Your task to perform on an android device: turn on showing notifications on the lock screen Image 0: 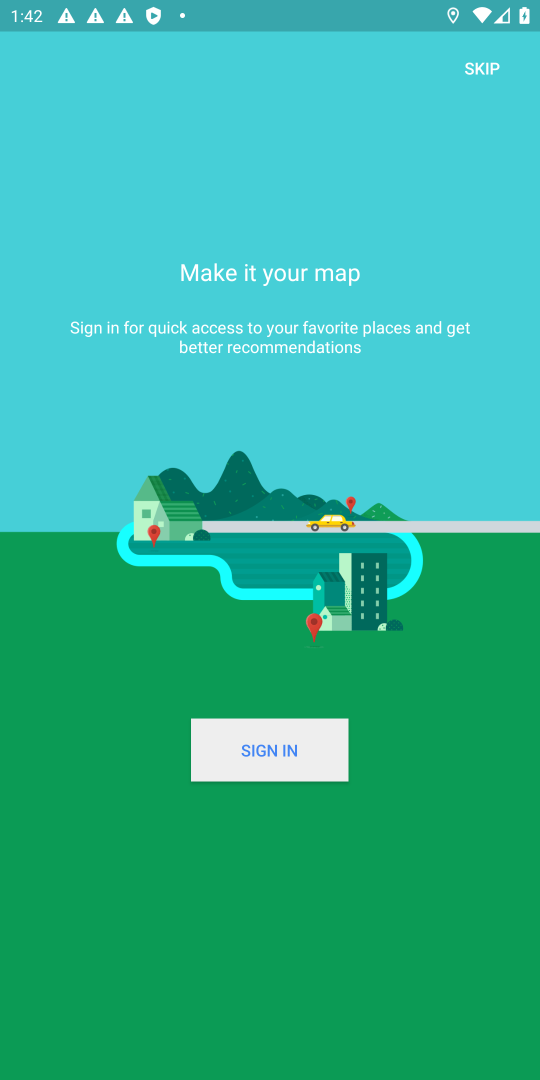
Step 0: click (471, 71)
Your task to perform on an android device: turn on showing notifications on the lock screen Image 1: 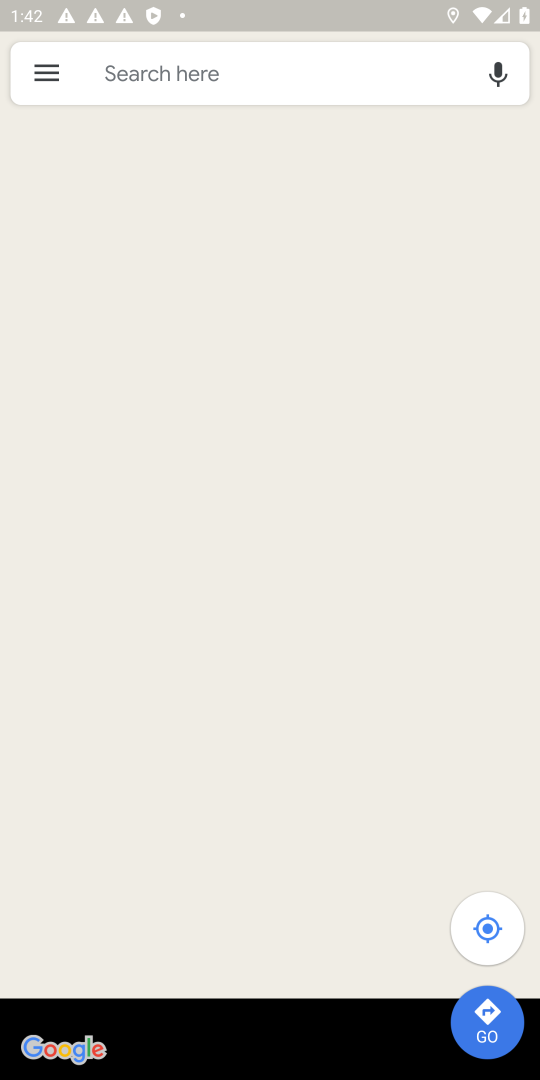
Step 1: click (481, 69)
Your task to perform on an android device: turn on showing notifications on the lock screen Image 2: 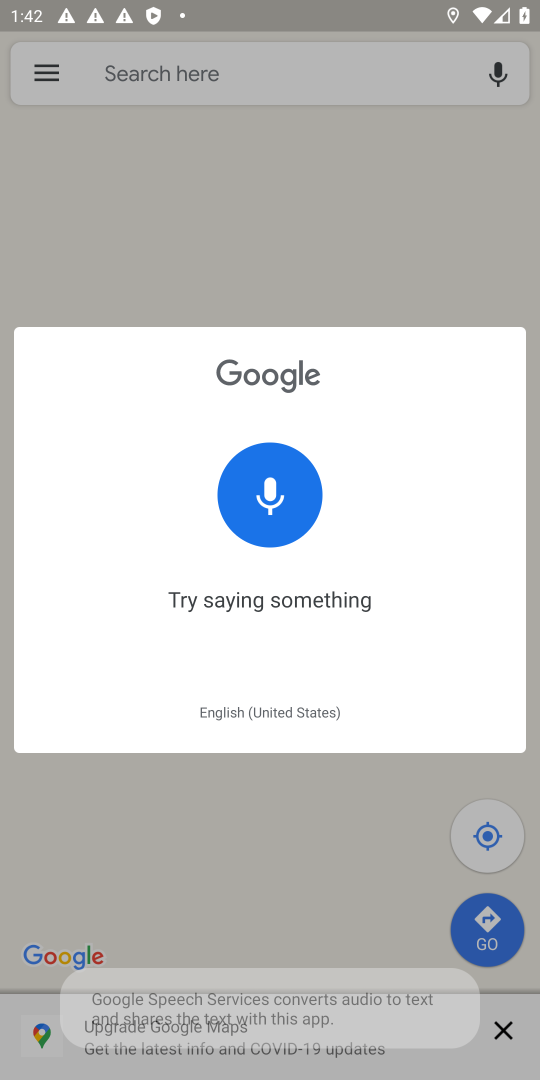
Step 2: press back button
Your task to perform on an android device: turn on showing notifications on the lock screen Image 3: 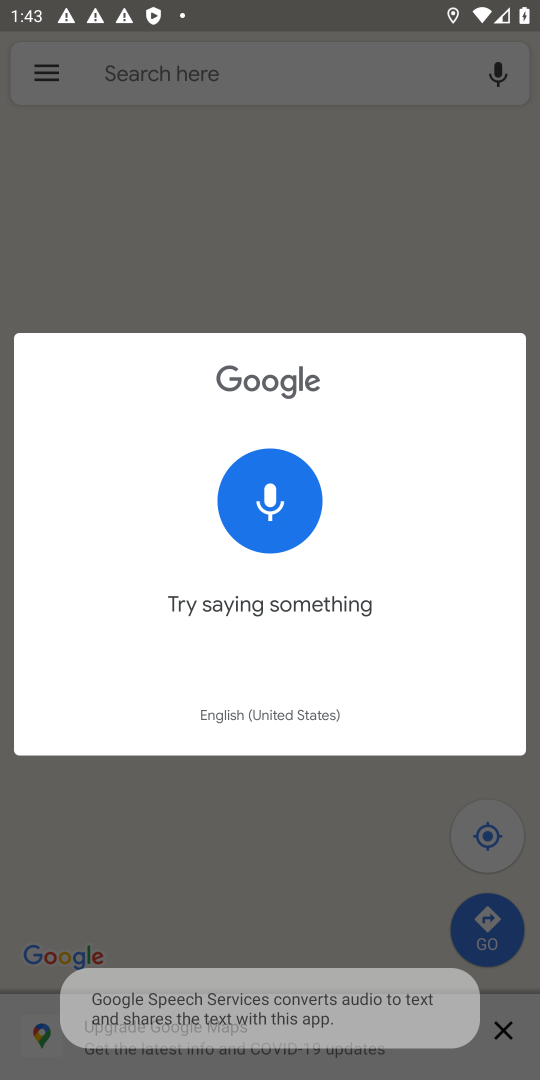
Step 3: press back button
Your task to perform on an android device: turn on showing notifications on the lock screen Image 4: 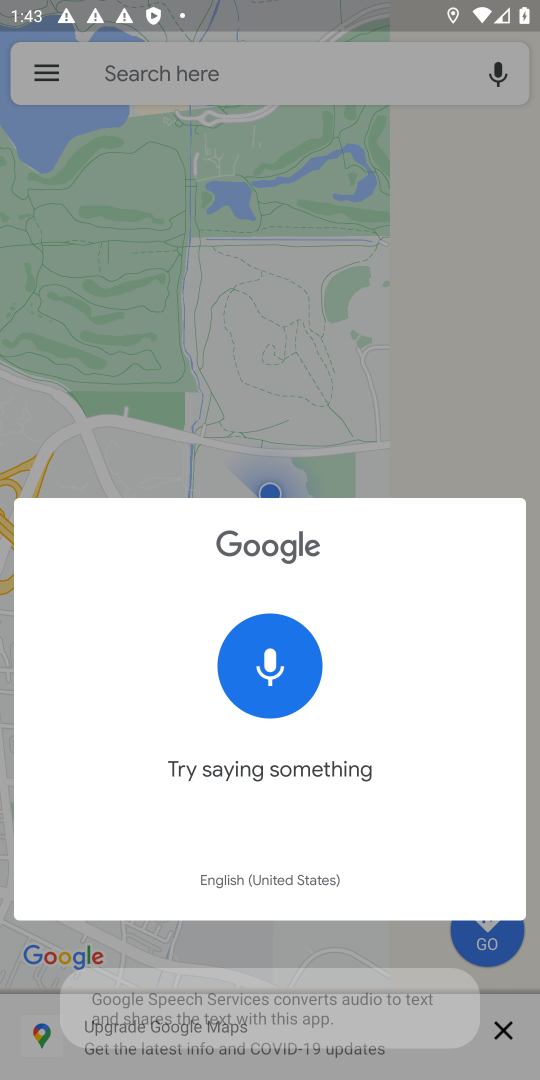
Step 4: click (367, 288)
Your task to perform on an android device: turn on showing notifications on the lock screen Image 5: 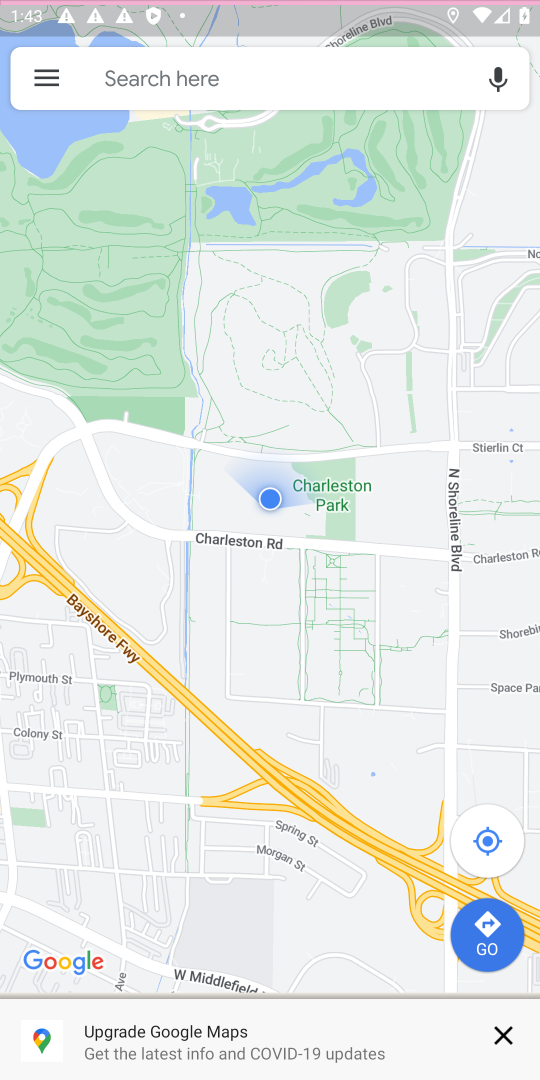
Step 5: press back button
Your task to perform on an android device: turn on showing notifications on the lock screen Image 6: 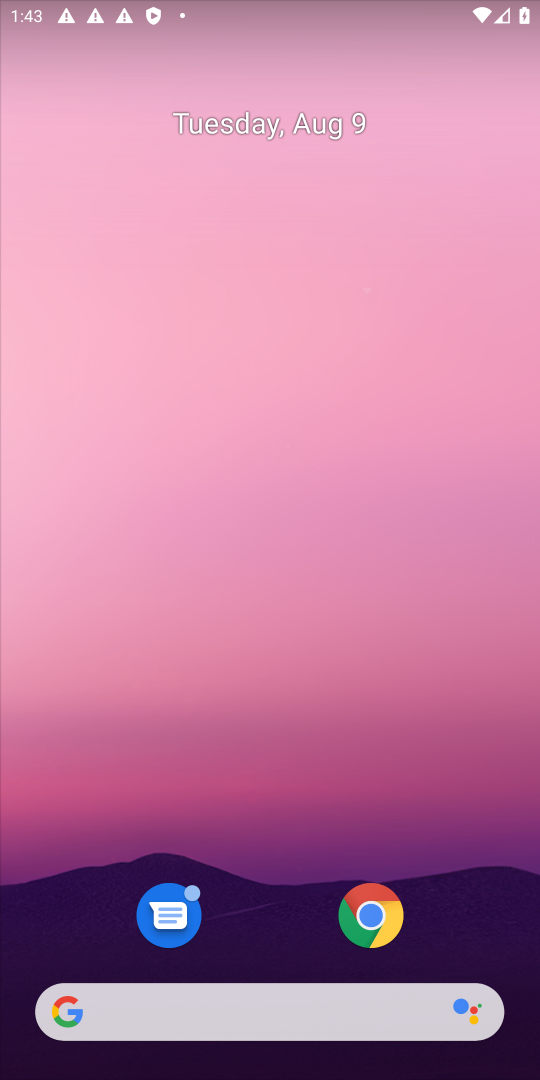
Step 6: press back button
Your task to perform on an android device: turn on showing notifications on the lock screen Image 7: 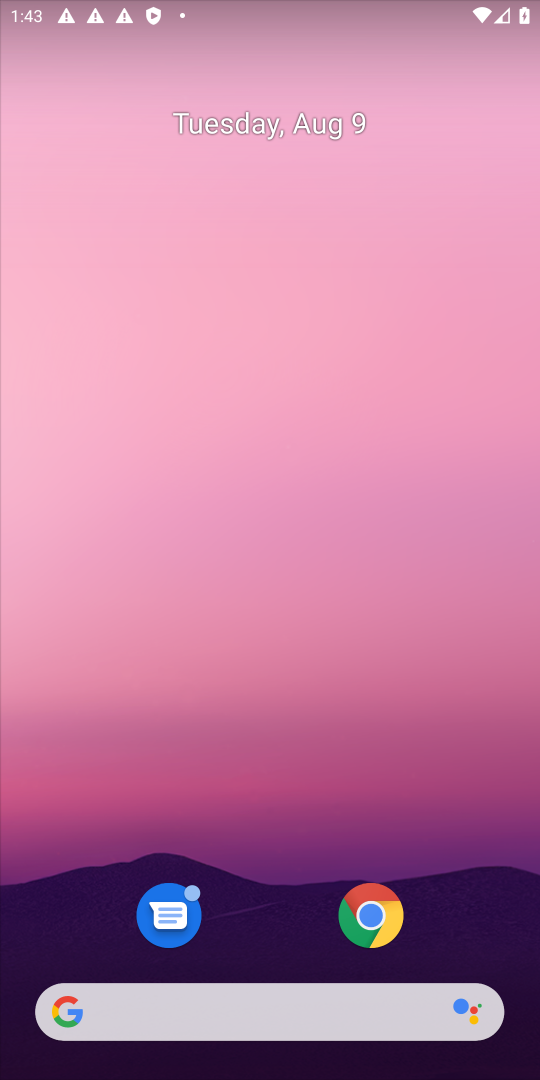
Step 7: drag from (250, 348) to (309, 370)
Your task to perform on an android device: turn on showing notifications on the lock screen Image 8: 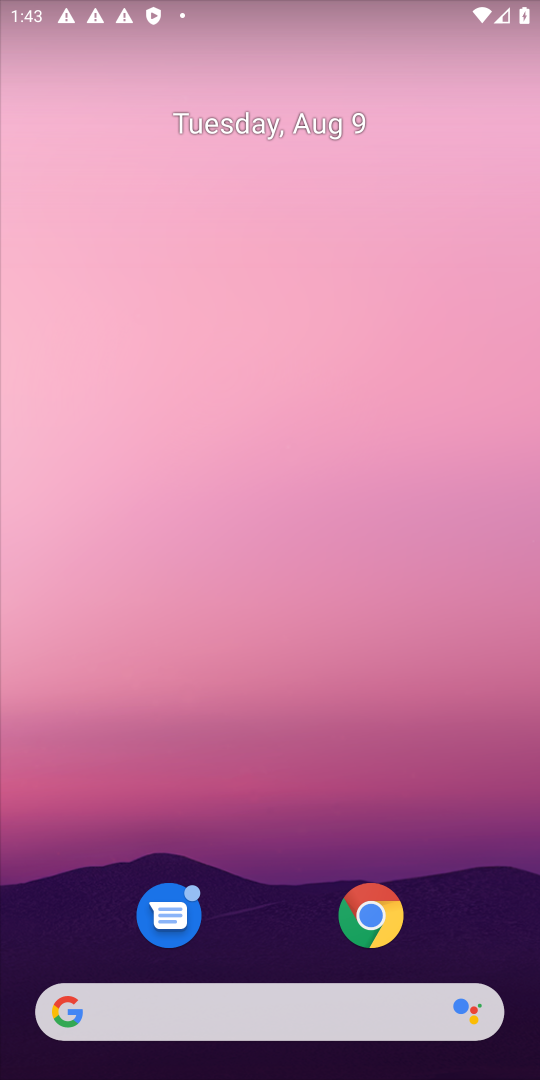
Step 8: drag from (292, 537) to (232, 234)
Your task to perform on an android device: turn on showing notifications on the lock screen Image 9: 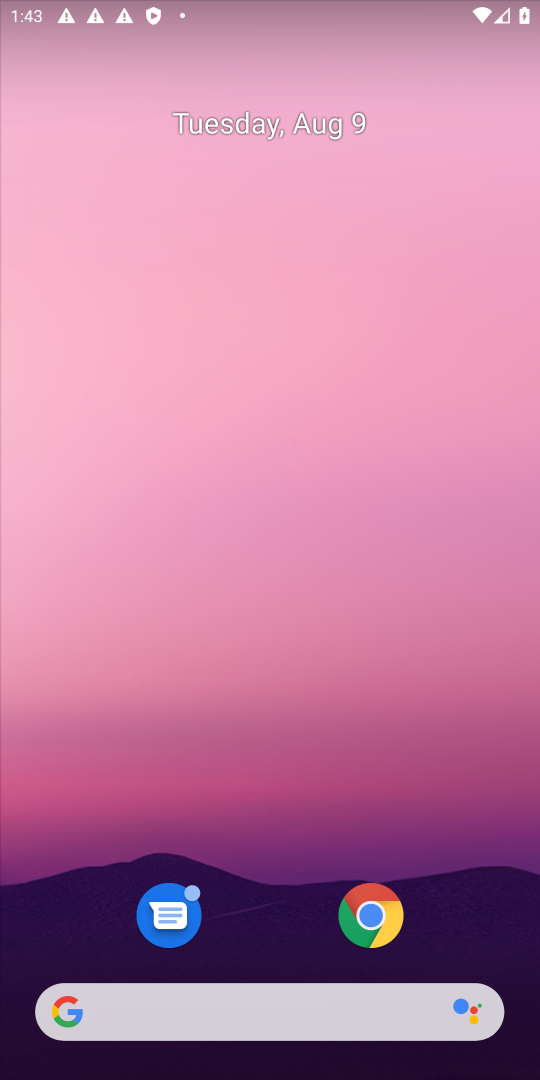
Step 9: drag from (244, 727) to (262, 103)
Your task to perform on an android device: turn on showing notifications on the lock screen Image 10: 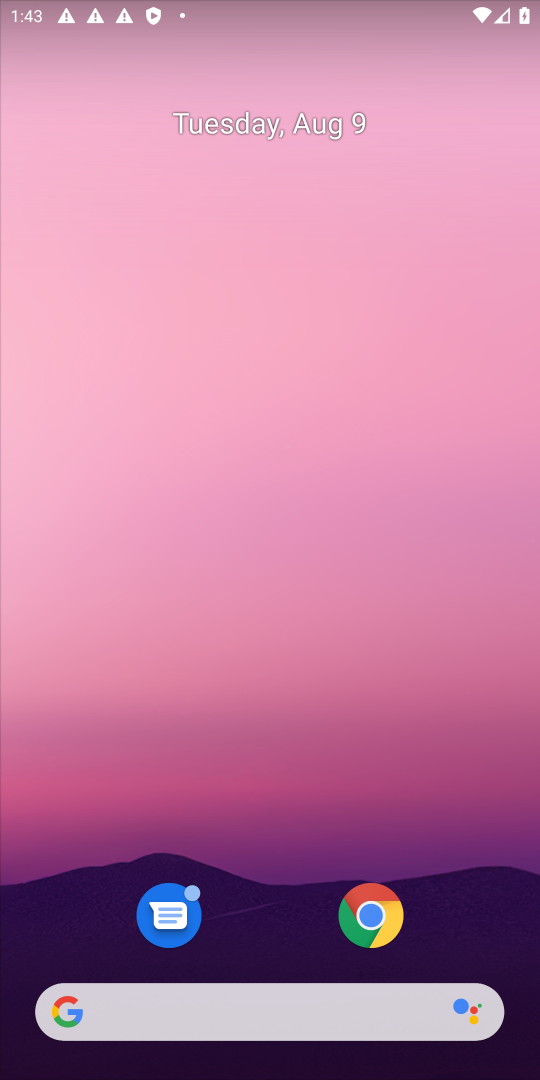
Step 10: drag from (309, 770) to (360, 164)
Your task to perform on an android device: turn on showing notifications on the lock screen Image 11: 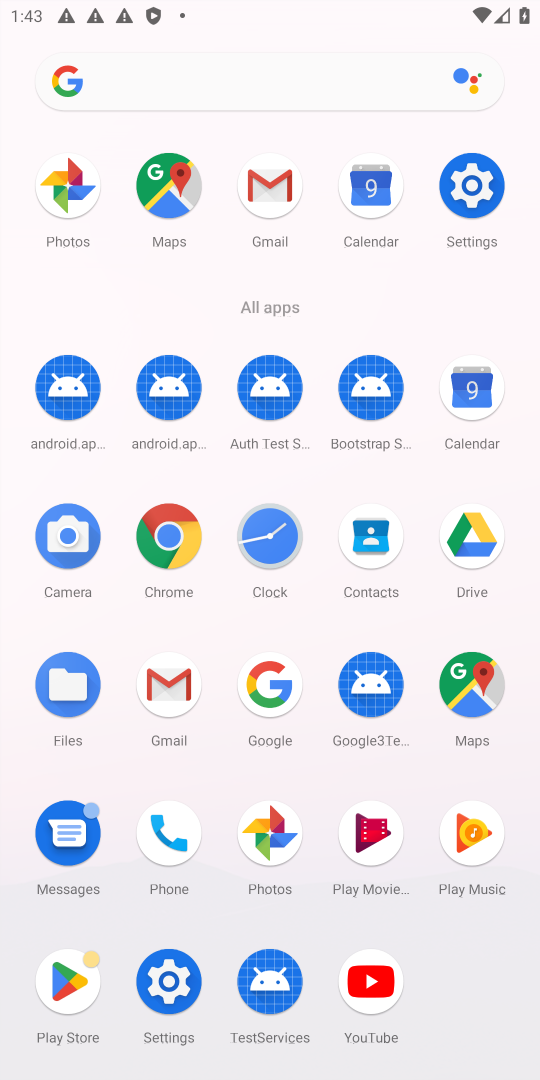
Step 11: click (477, 179)
Your task to perform on an android device: turn on showing notifications on the lock screen Image 12: 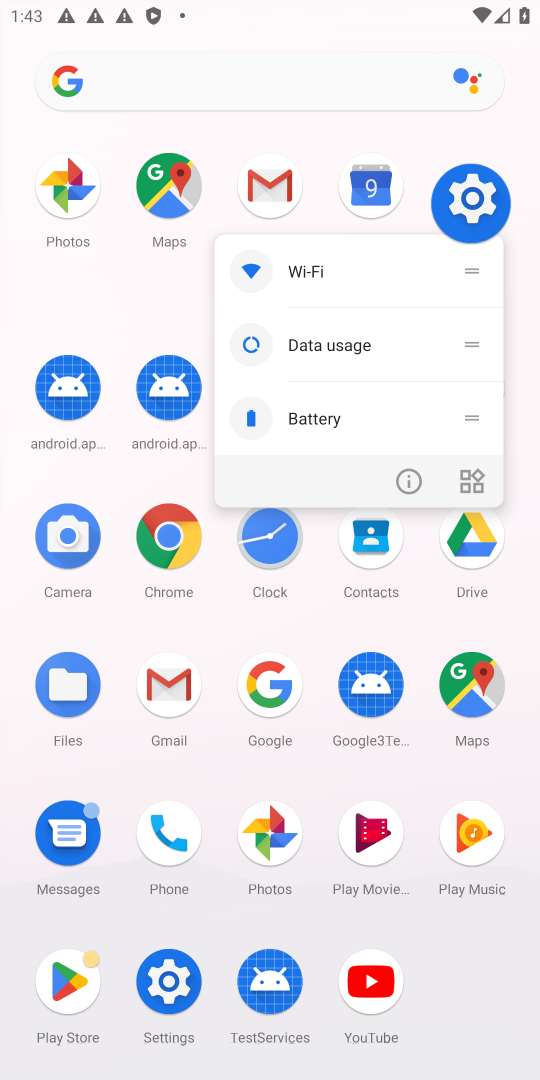
Step 12: click (479, 207)
Your task to perform on an android device: turn on showing notifications on the lock screen Image 13: 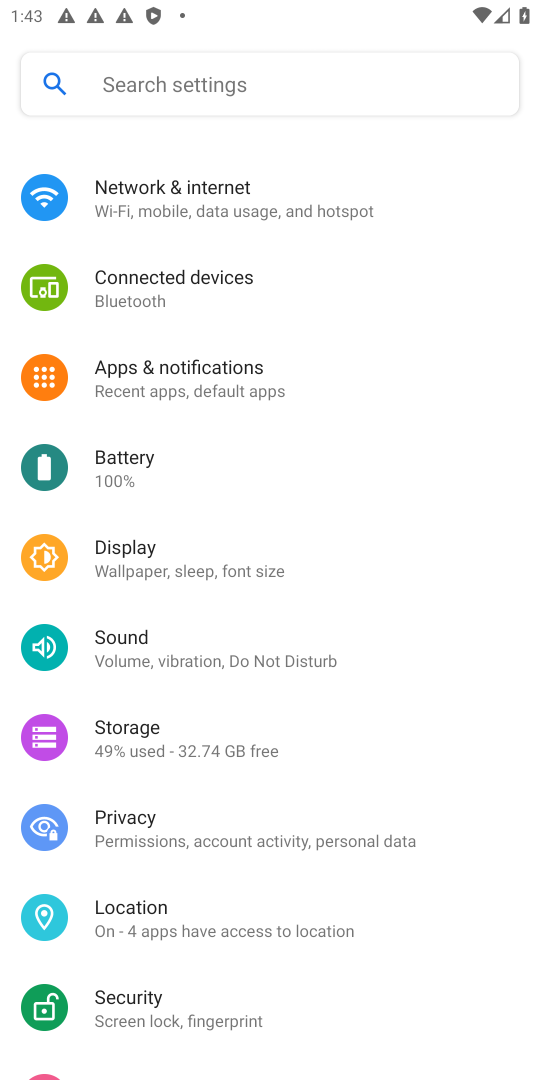
Step 13: click (478, 212)
Your task to perform on an android device: turn on showing notifications on the lock screen Image 14: 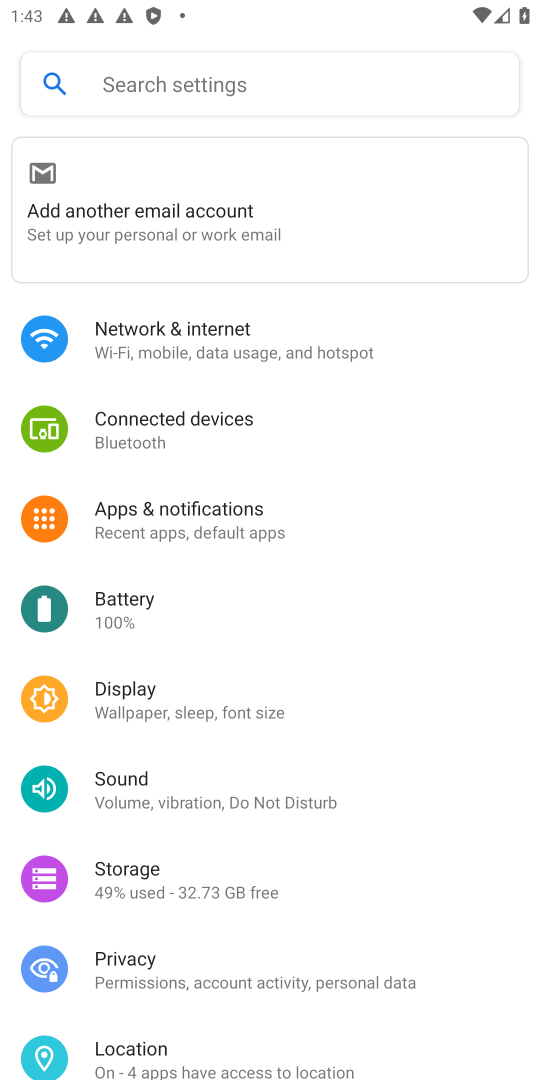
Step 14: click (184, 525)
Your task to perform on an android device: turn on showing notifications on the lock screen Image 15: 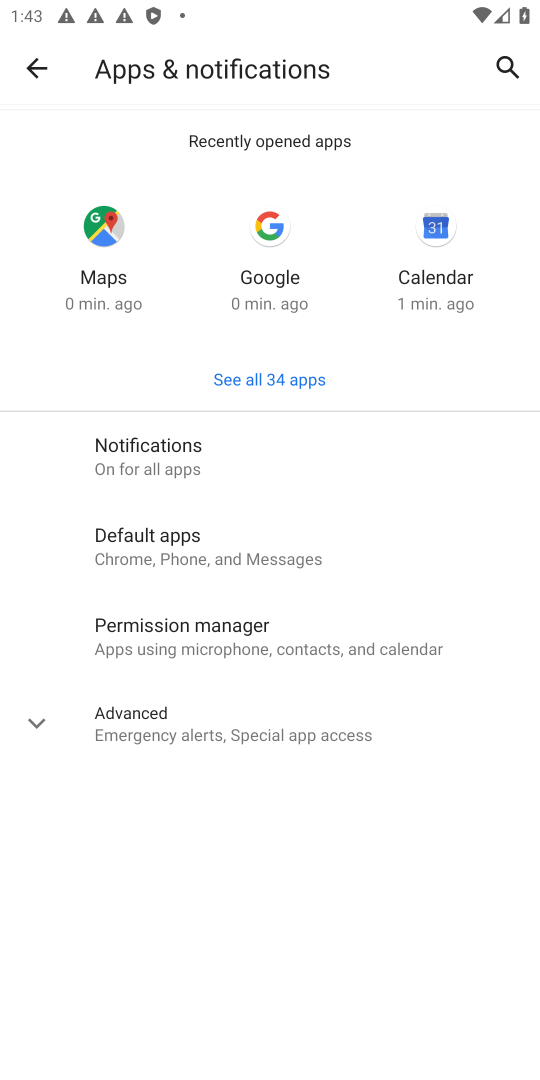
Step 15: click (153, 462)
Your task to perform on an android device: turn on showing notifications on the lock screen Image 16: 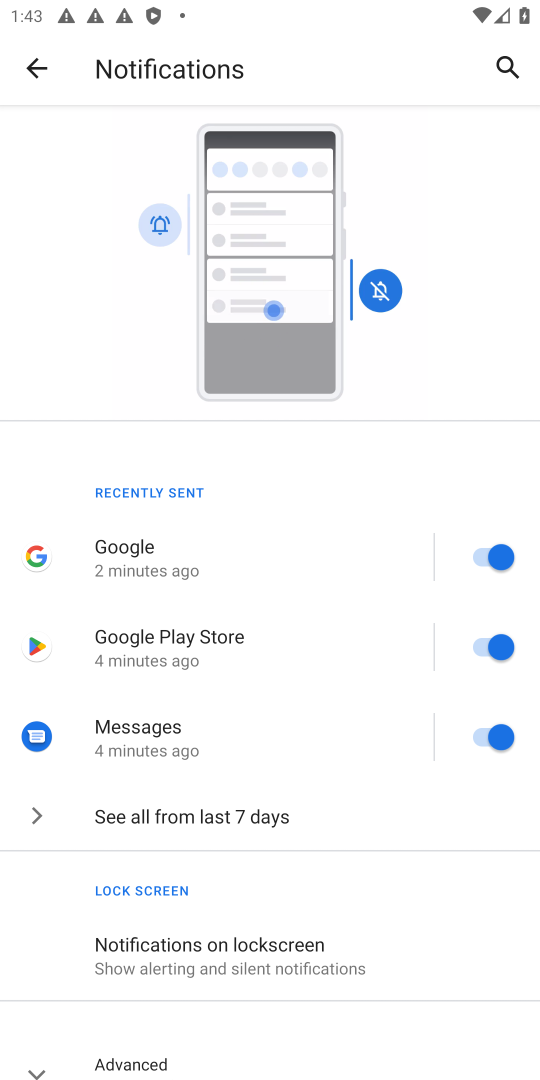
Step 16: click (178, 950)
Your task to perform on an android device: turn on showing notifications on the lock screen Image 17: 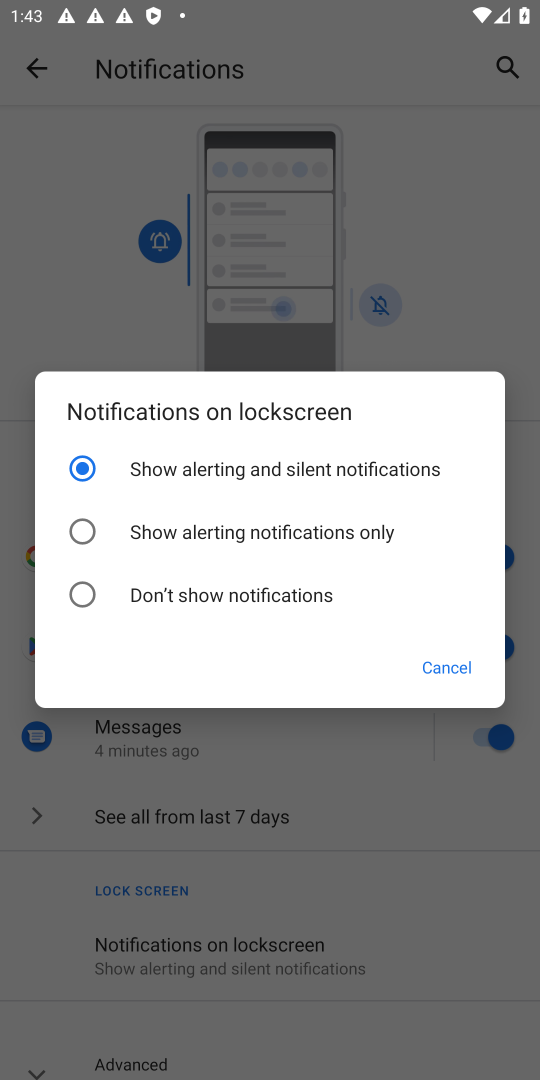
Step 17: click (427, 669)
Your task to perform on an android device: turn on showing notifications on the lock screen Image 18: 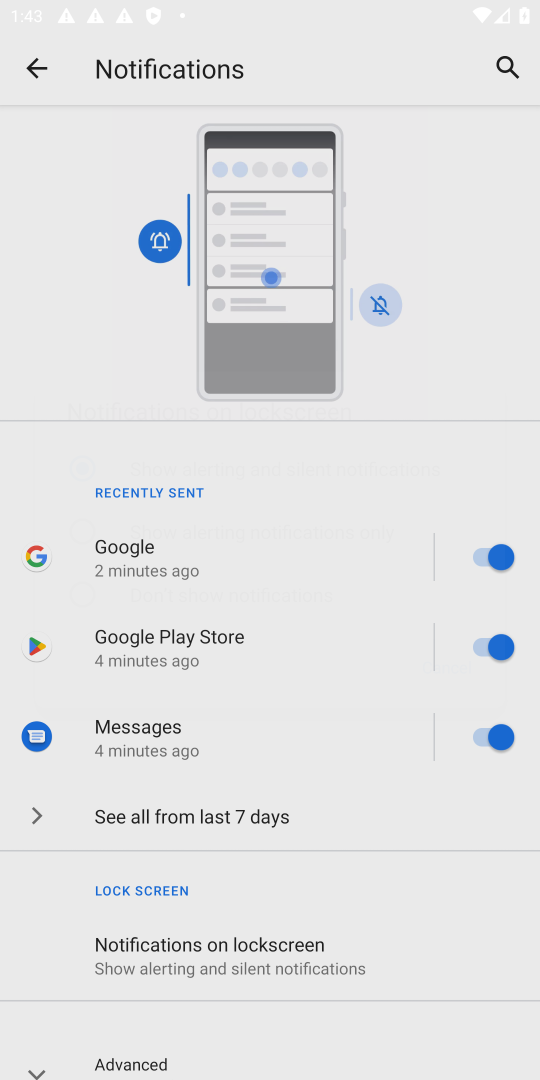
Step 18: task complete